Your task to perform on an android device: Check the weather Image 0: 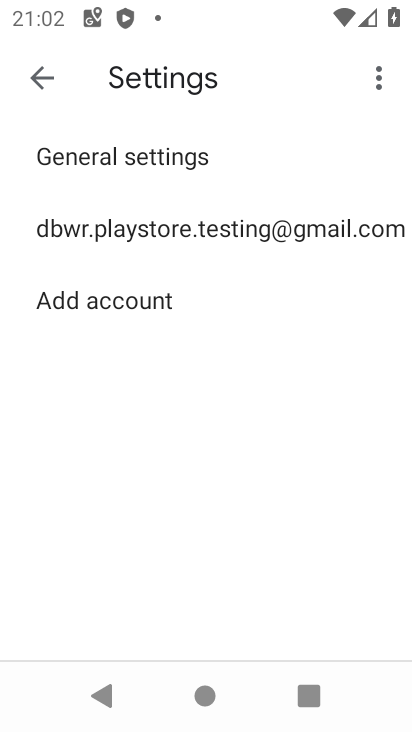
Step 0: press home button
Your task to perform on an android device: Check the weather Image 1: 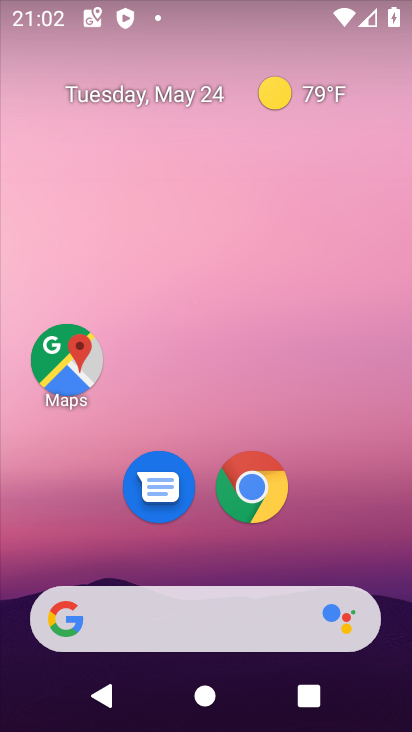
Step 1: click (265, 490)
Your task to perform on an android device: Check the weather Image 2: 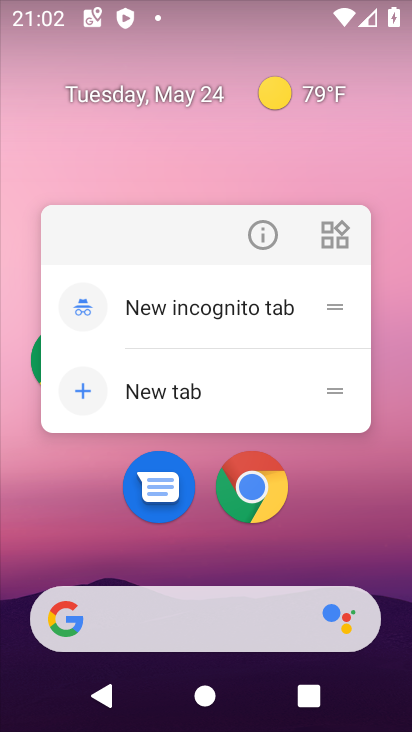
Step 2: click (265, 490)
Your task to perform on an android device: Check the weather Image 3: 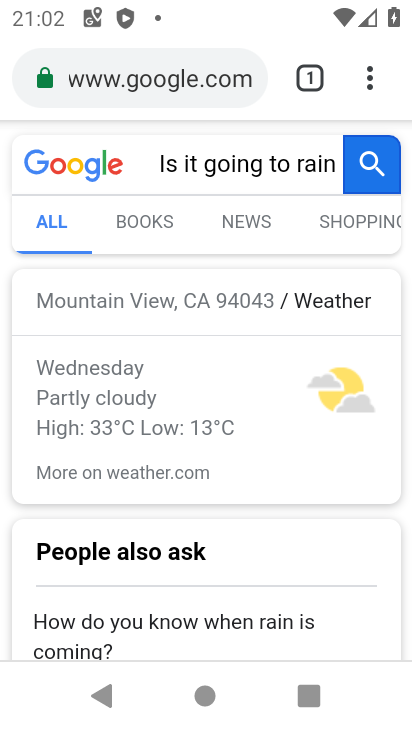
Step 3: click (199, 85)
Your task to perform on an android device: Check the weather Image 4: 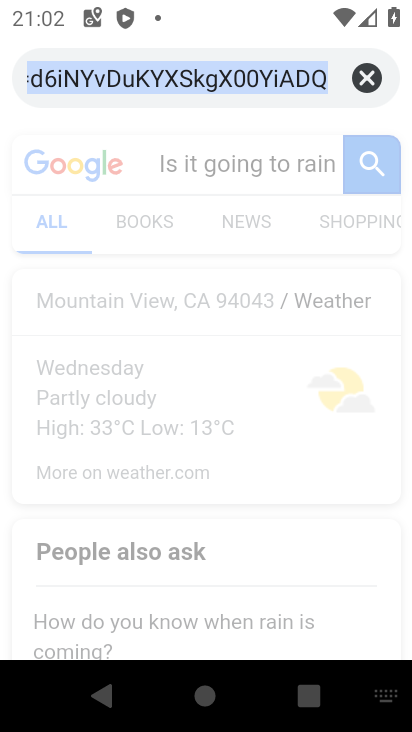
Step 4: click (359, 80)
Your task to perform on an android device: Check the weather Image 5: 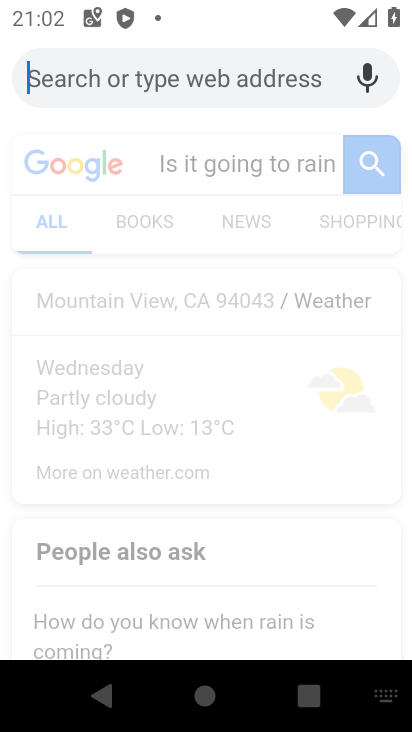
Step 5: type " weather"
Your task to perform on an android device: Check the weather Image 6: 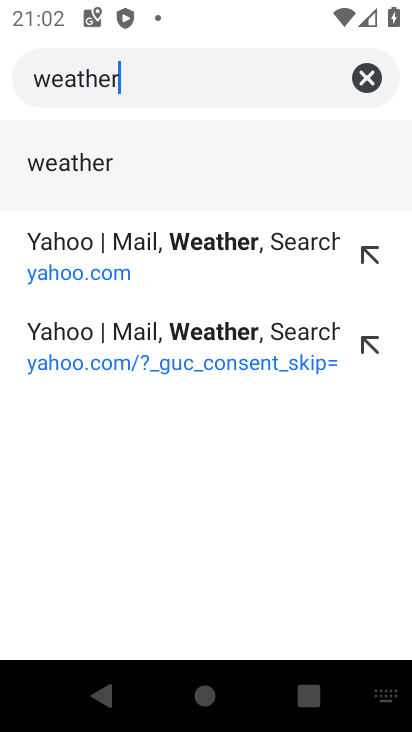
Step 6: type ""
Your task to perform on an android device: Check the weather Image 7: 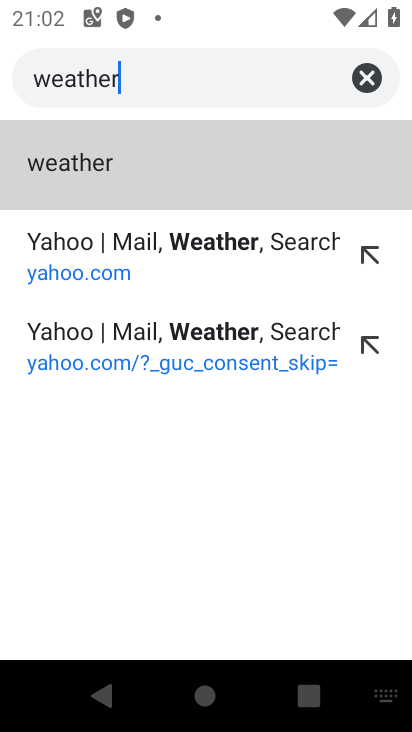
Step 7: click (111, 181)
Your task to perform on an android device: Check the weather Image 8: 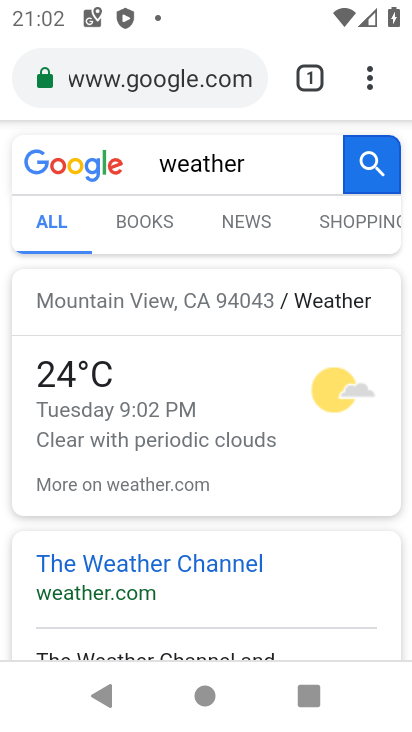
Step 8: task complete